Your task to perform on an android device: Open the stopwatch Image 0: 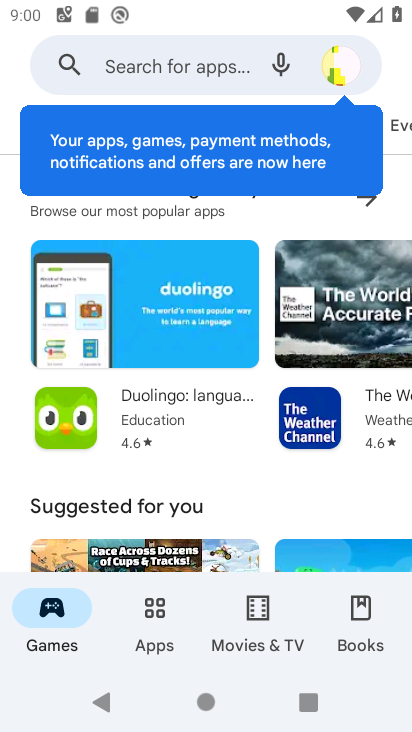
Step 0: press home button
Your task to perform on an android device: Open the stopwatch Image 1: 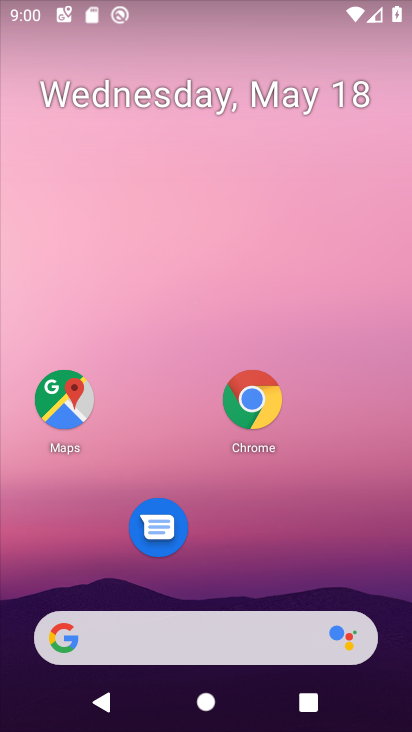
Step 1: drag from (167, 581) to (214, 9)
Your task to perform on an android device: Open the stopwatch Image 2: 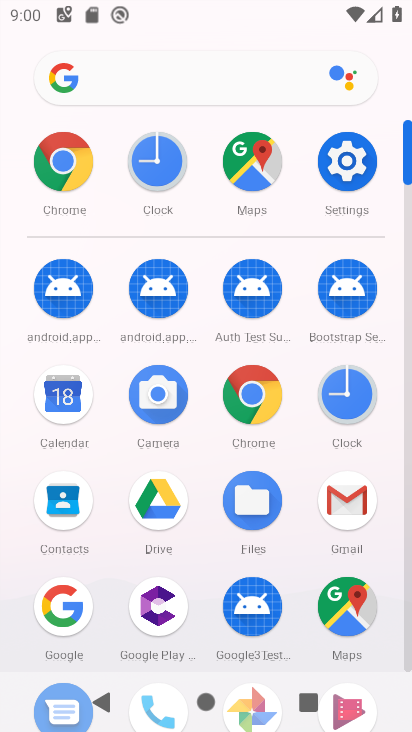
Step 2: click (161, 151)
Your task to perform on an android device: Open the stopwatch Image 3: 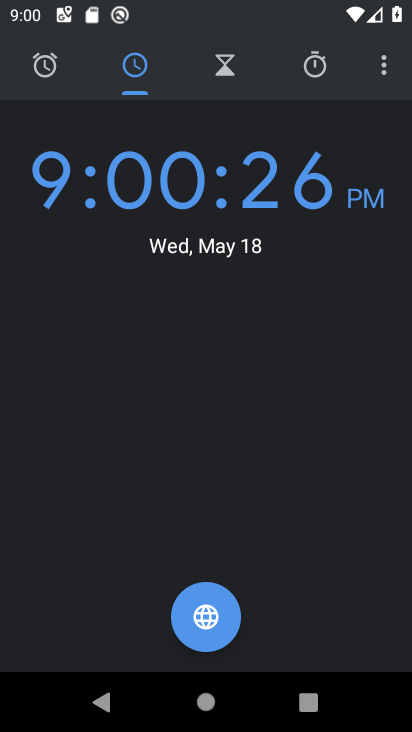
Step 3: click (309, 76)
Your task to perform on an android device: Open the stopwatch Image 4: 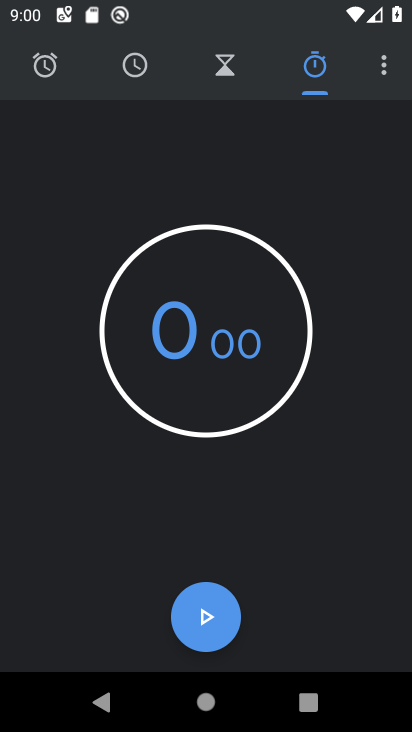
Step 4: click (309, 75)
Your task to perform on an android device: Open the stopwatch Image 5: 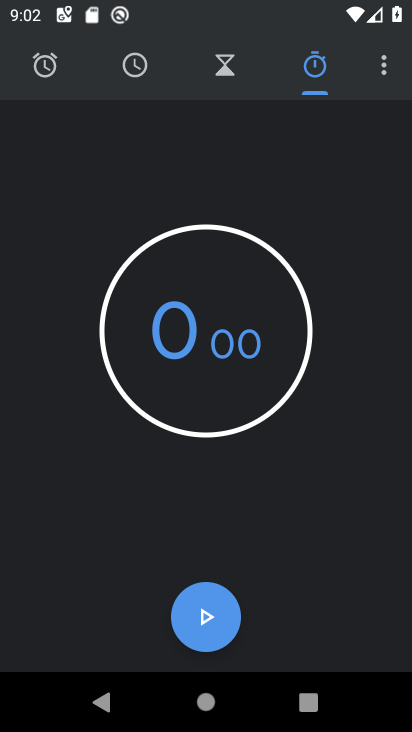
Step 5: task complete